Your task to perform on an android device: turn on translation in the chrome app Image 0: 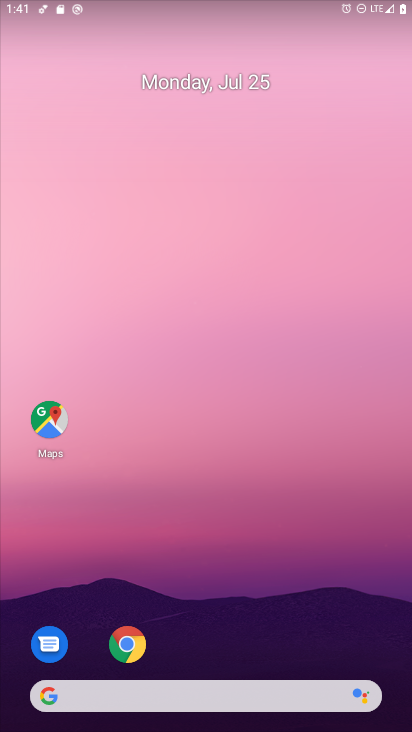
Step 0: click (120, 647)
Your task to perform on an android device: turn on translation in the chrome app Image 1: 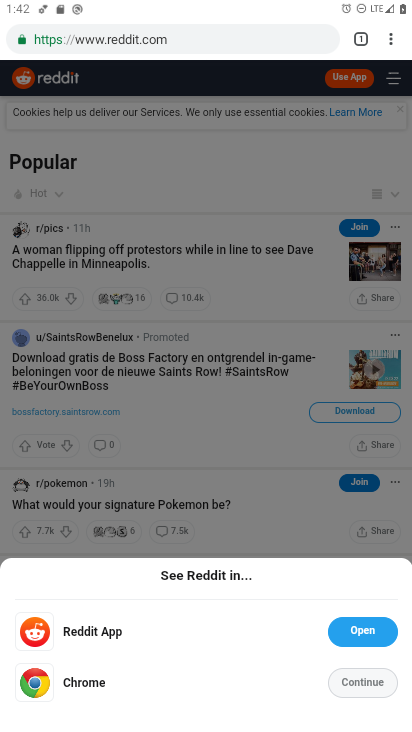
Step 1: click (387, 37)
Your task to perform on an android device: turn on translation in the chrome app Image 2: 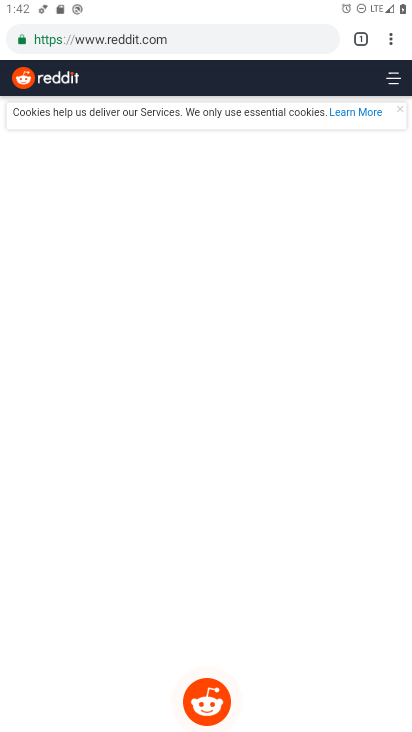
Step 2: click (394, 44)
Your task to perform on an android device: turn on translation in the chrome app Image 3: 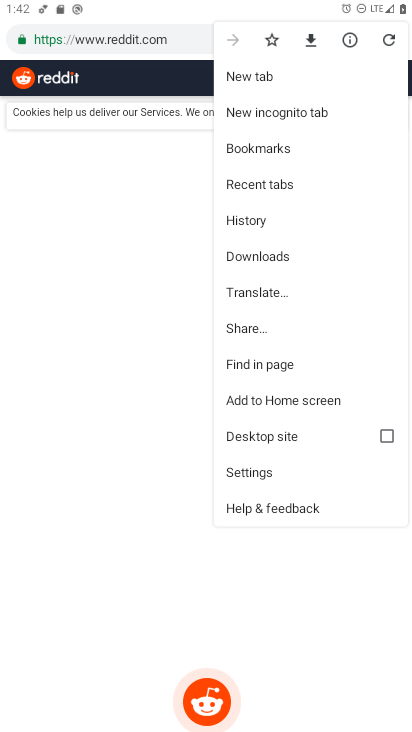
Step 3: click (251, 482)
Your task to perform on an android device: turn on translation in the chrome app Image 4: 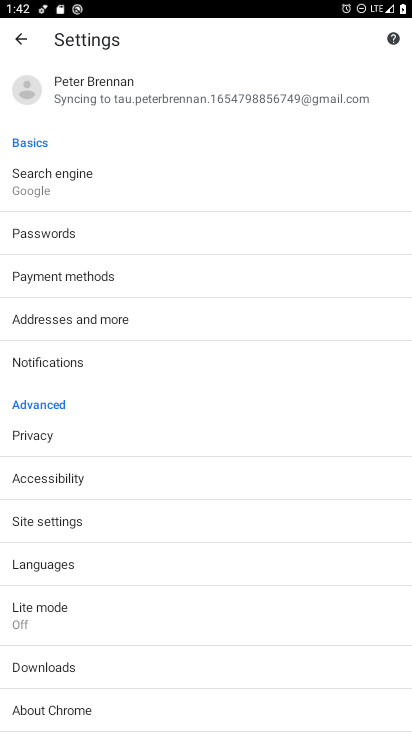
Step 4: click (50, 572)
Your task to perform on an android device: turn on translation in the chrome app Image 5: 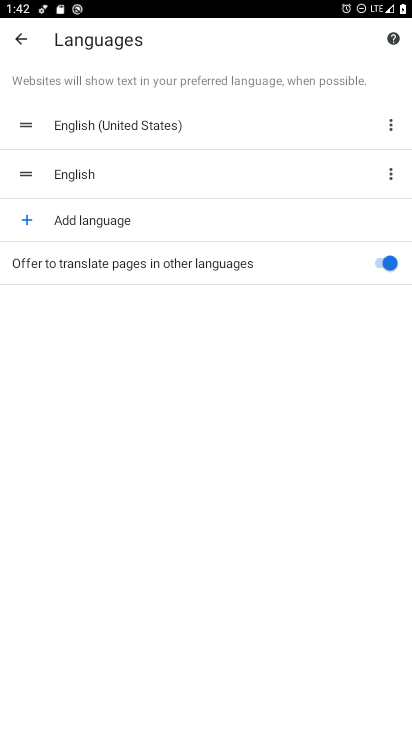
Step 5: task complete